Your task to perform on an android device: Go to internet settings Image 0: 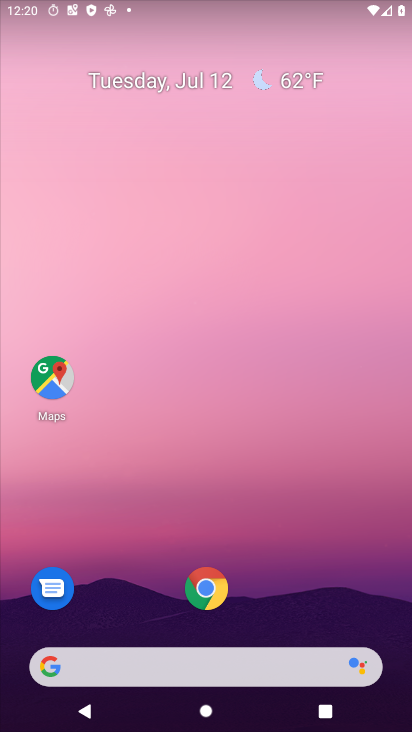
Step 0: drag from (167, 629) to (64, 58)
Your task to perform on an android device: Go to internet settings Image 1: 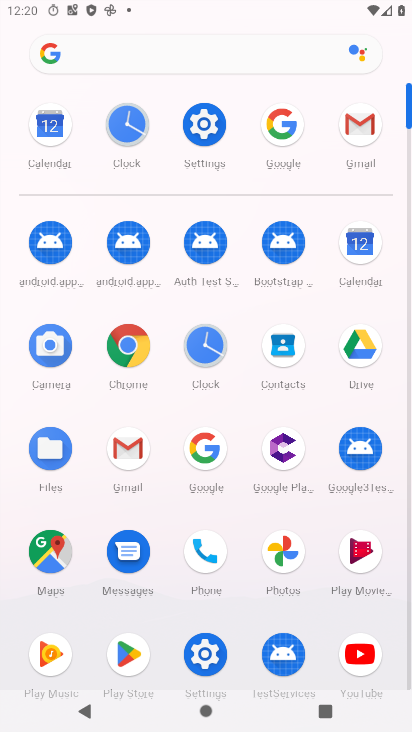
Step 1: click (203, 127)
Your task to perform on an android device: Go to internet settings Image 2: 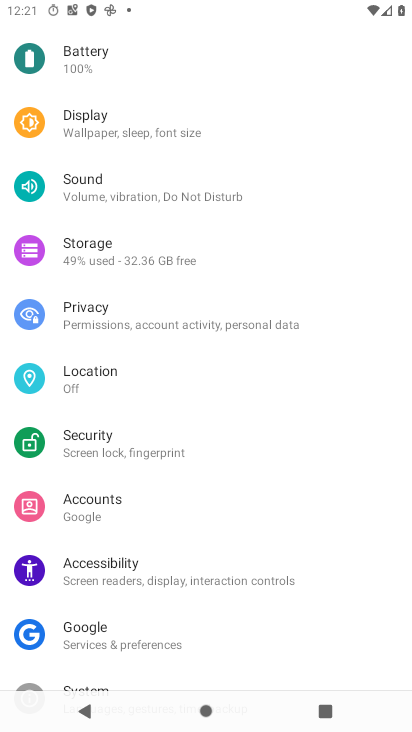
Step 2: drag from (120, 85) to (177, 710)
Your task to perform on an android device: Go to internet settings Image 3: 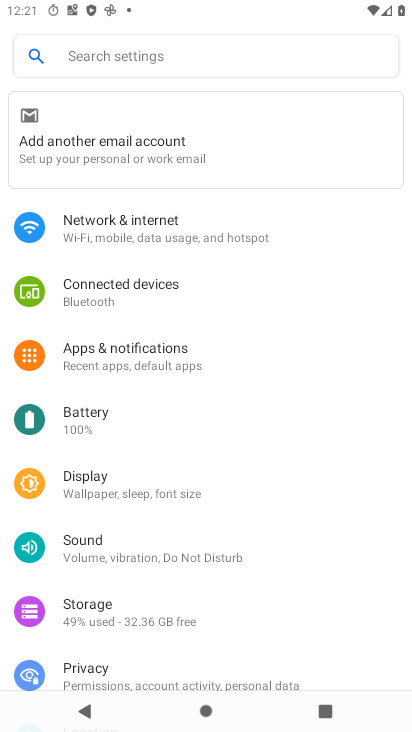
Step 3: click (169, 233)
Your task to perform on an android device: Go to internet settings Image 4: 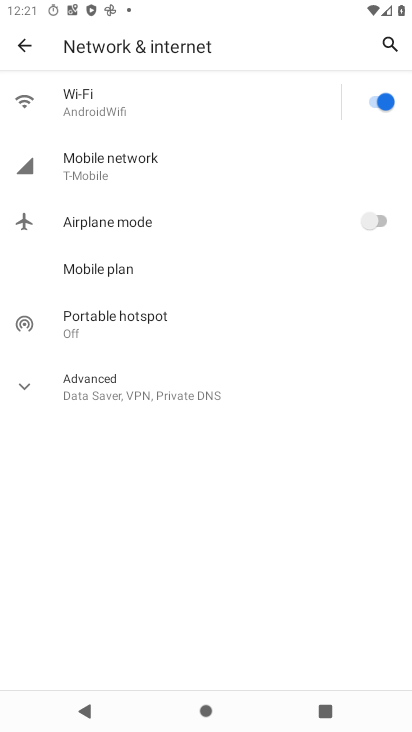
Step 4: task complete